Your task to perform on an android device: What's on my calendar today? Image 0: 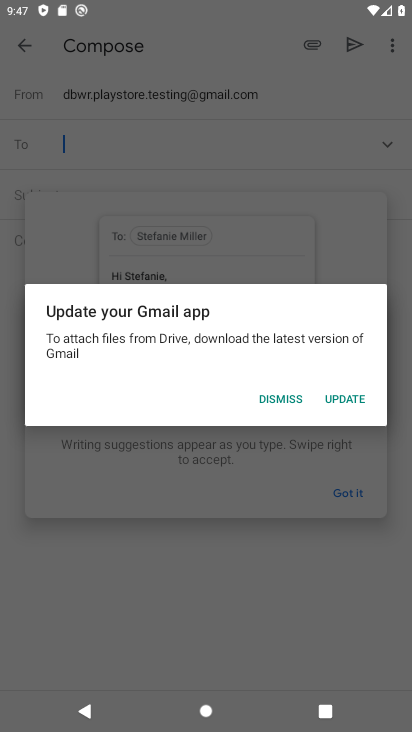
Step 0: press home button
Your task to perform on an android device: What's on my calendar today? Image 1: 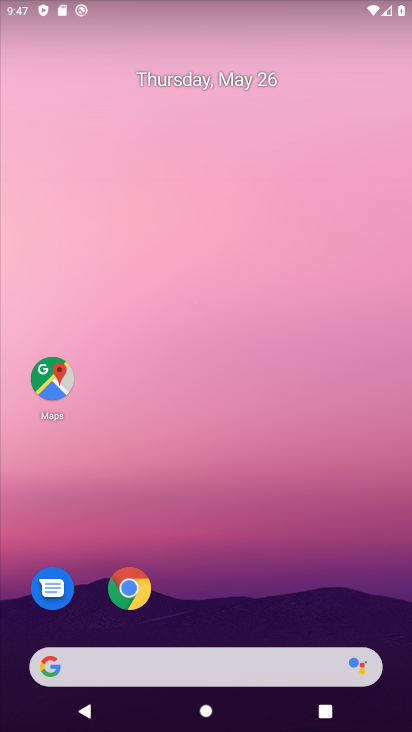
Step 1: drag from (190, 644) to (221, 170)
Your task to perform on an android device: What's on my calendar today? Image 2: 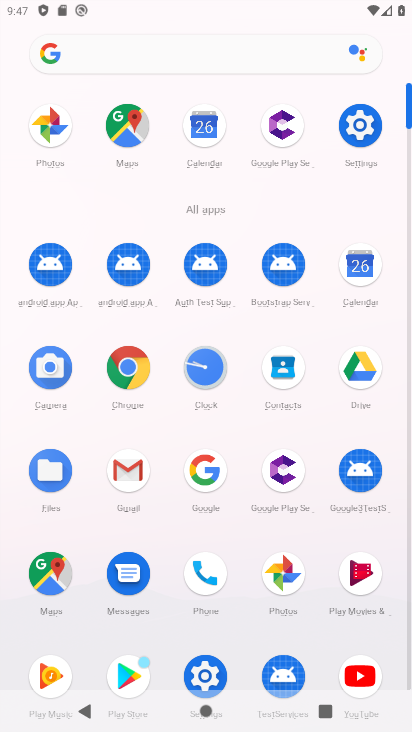
Step 2: click (353, 272)
Your task to perform on an android device: What's on my calendar today? Image 3: 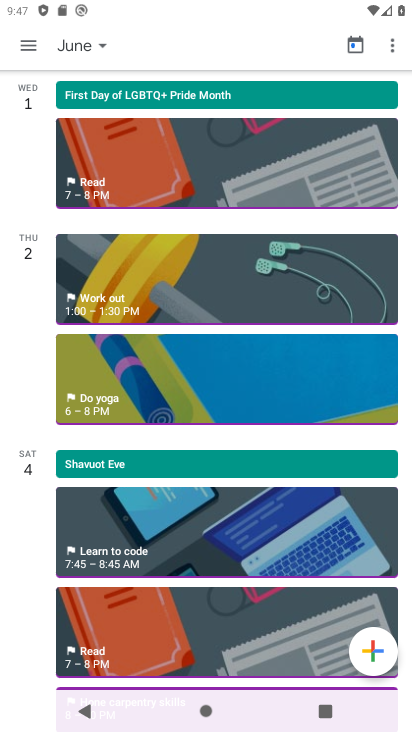
Step 3: click (83, 45)
Your task to perform on an android device: What's on my calendar today? Image 4: 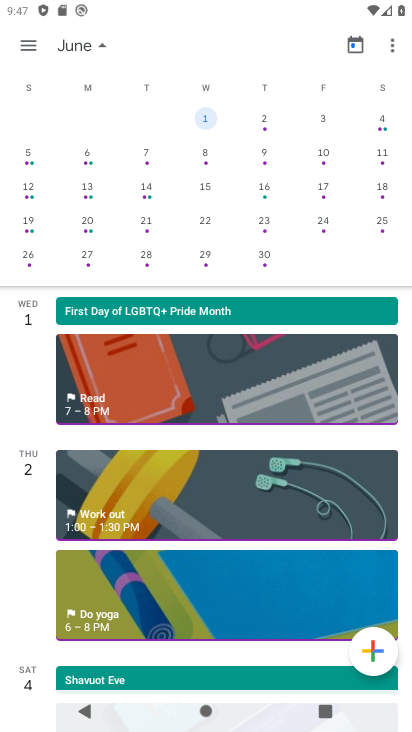
Step 4: drag from (73, 158) to (410, 240)
Your task to perform on an android device: What's on my calendar today? Image 5: 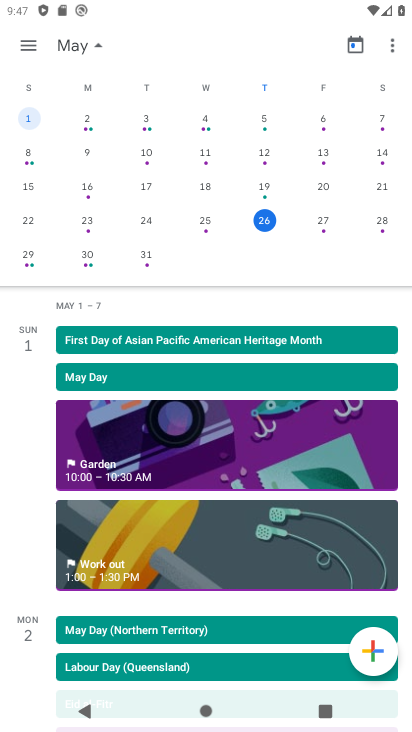
Step 5: click (268, 221)
Your task to perform on an android device: What's on my calendar today? Image 6: 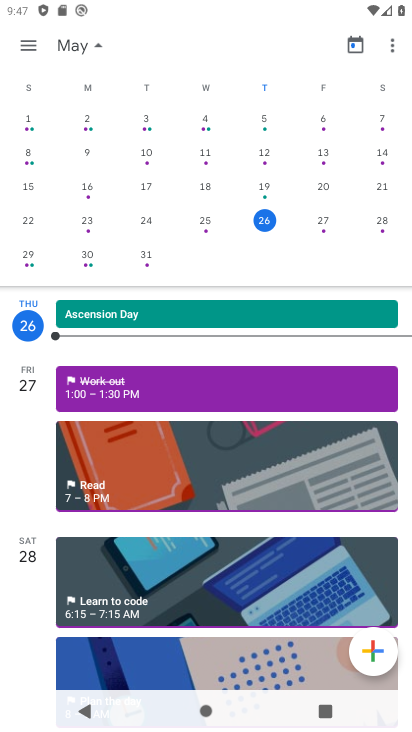
Step 6: task complete